Your task to perform on an android device: Go to Google maps Image 0: 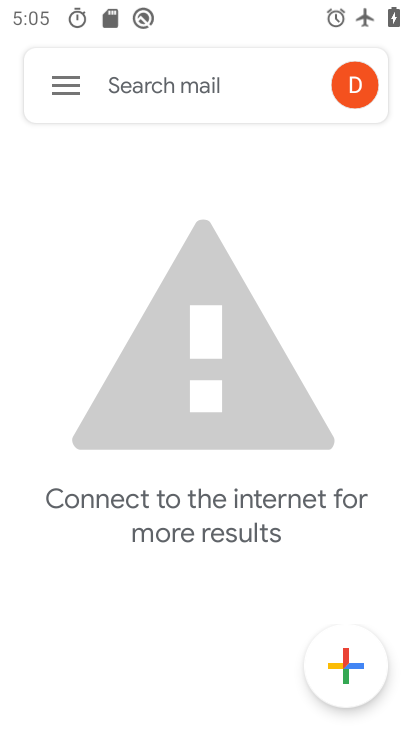
Step 0: press home button
Your task to perform on an android device: Go to Google maps Image 1: 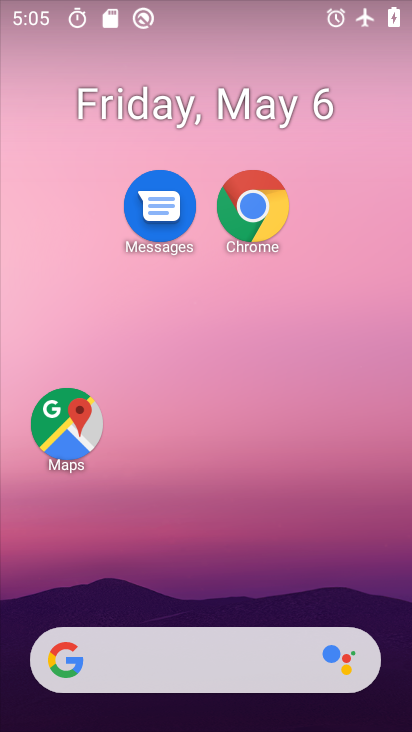
Step 1: drag from (220, 613) to (248, 283)
Your task to perform on an android device: Go to Google maps Image 2: 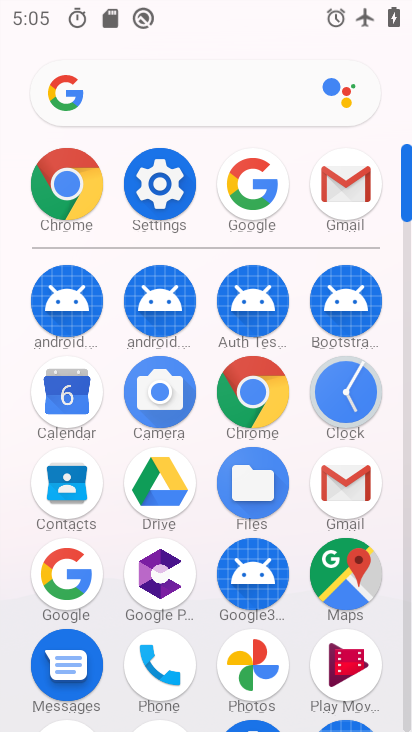
Step 2: click (355, 580)
Your task to perform on an android device: Go to Google maps Image 3: 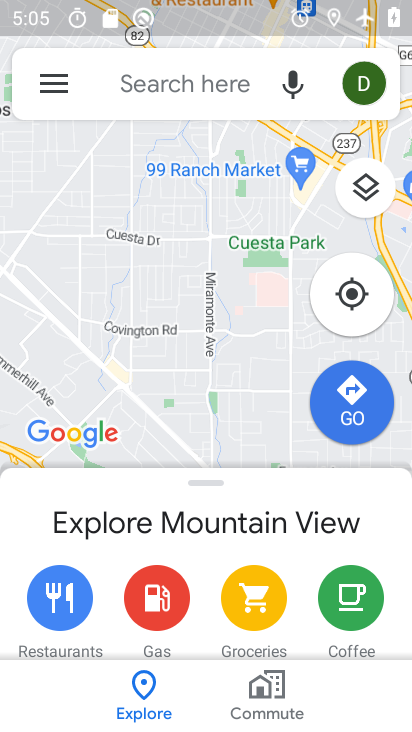
Step 3: task complete